Your task to perform on an android device: turn pop-ups off in chrome Image 0: 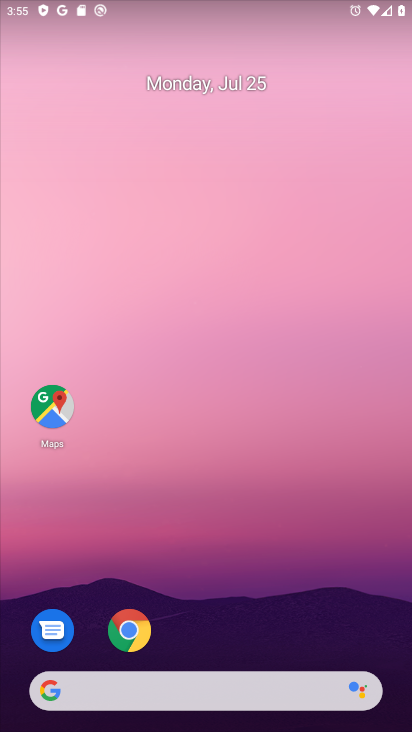
Step 0: click (130, 630)
Your task to perform on an android device: turn pop-ups off in chrome Image 1: 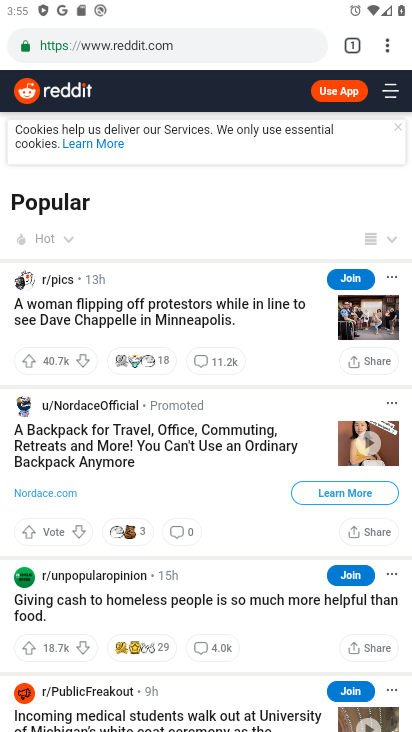
Step 1: click (387, 44)
Your task to perform on an android device: turn pop-ups off in chrome Image 2: 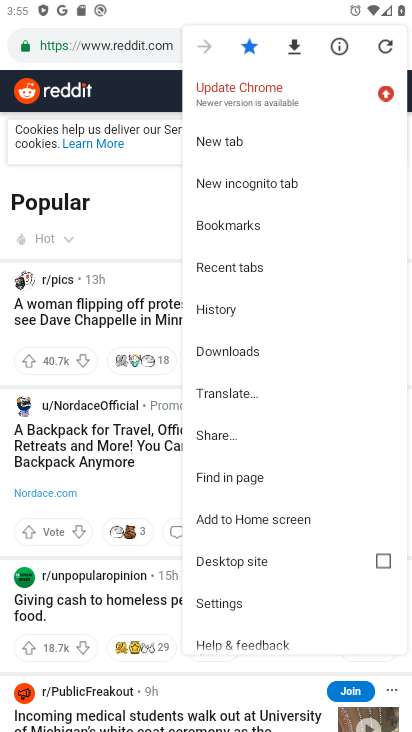
Step 2: click (225, 606)
Your task to perform on an android device: turn pop-ups off in chrome Image 3: 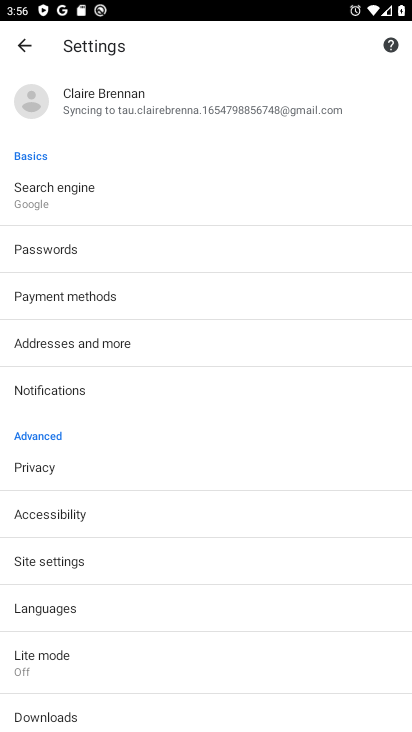
Step 3: click (67, 560)
Your task to perform on an android device: turn pop-ups off in chrome Image 4: 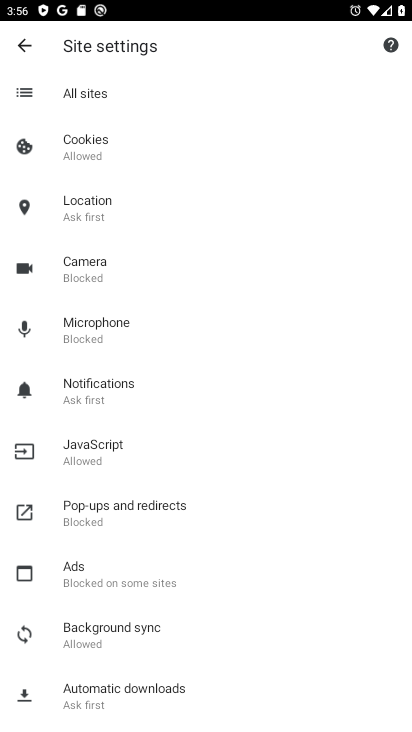
Step 4: click (88, 517)
Your task to perform on an android device: turn pop-ups off in chrome Image 5: 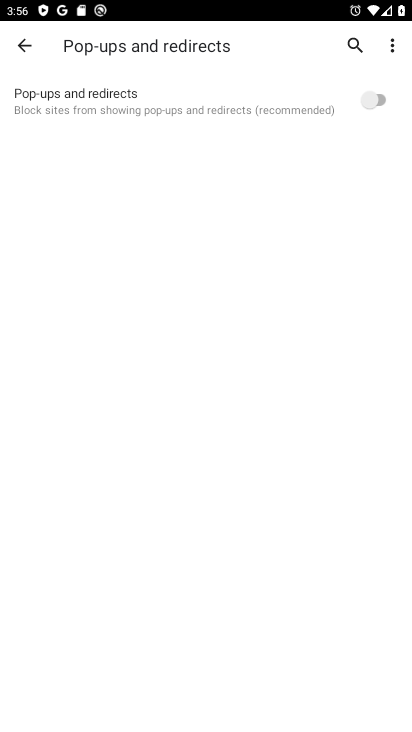
Step 5: task complete